Your task to perform on an android device: Find coffee shops on Maps Image 0: 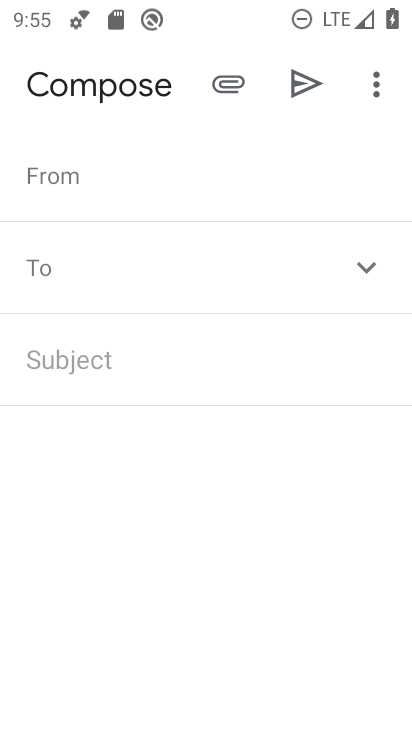
Step 0: drag from (336, 582) to (303, 190)
Your task to perform on an android device: Find coffee shops on Maps Image 1: 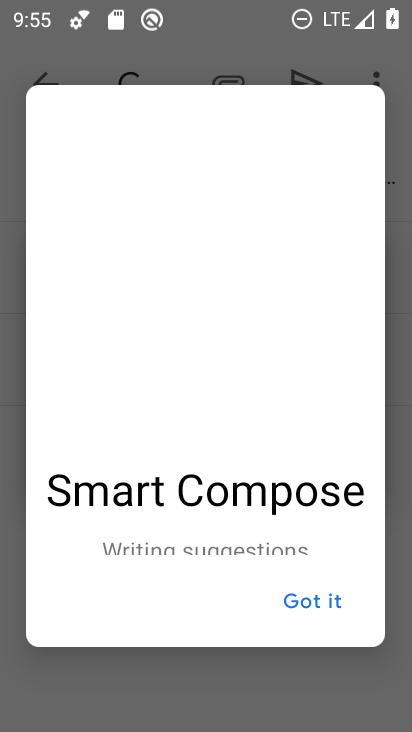
Step 1: press home button
Your task to perform on an android device: Find coffee shops on Maps Image 2: 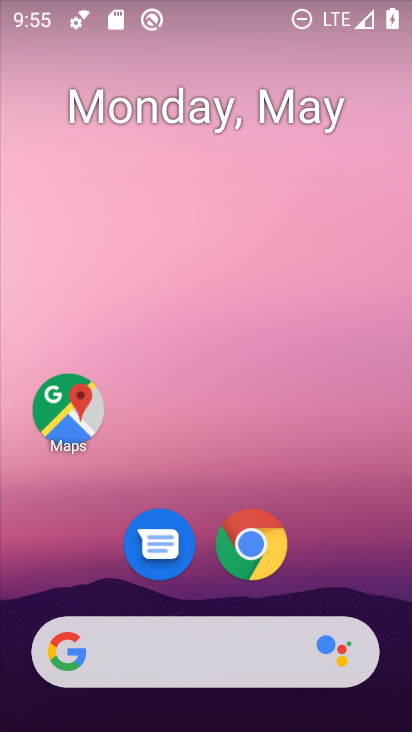
Step 2: drag from (327, 548) to (333, 150)
Your task to perform on an android device: Find coffee shops on Maps Image 3: 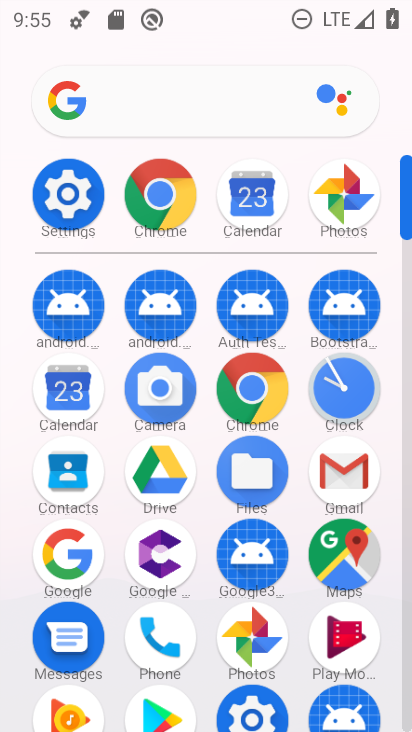
Step 3: drag from (253, 533) to (311, 184)
Your task to perform on an android device: Find coffee shops on Maps Image 4: 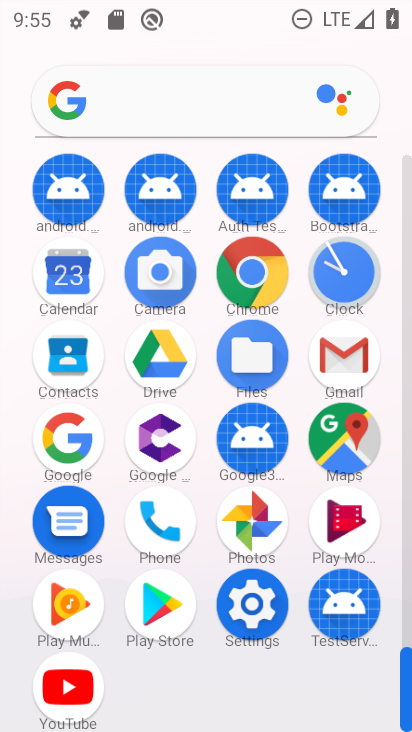
Step 4: click (334, 405)
Your task to perform on an android device: Find coffee shops on Maps Image 5: 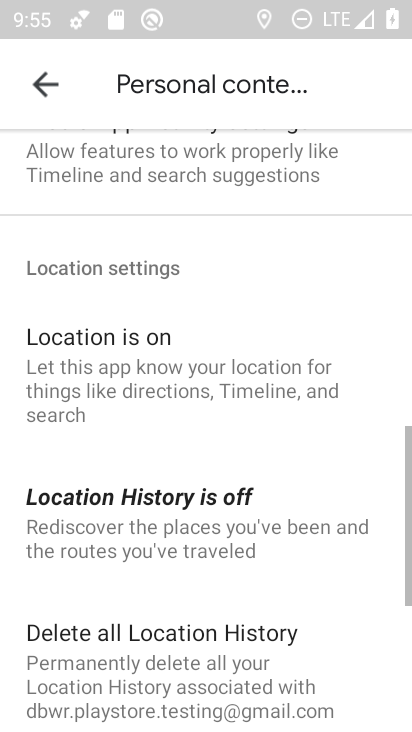
Step 5: click (49, 98)
Your task to perform on an android device: Find coffee shops on Maps Image 6: 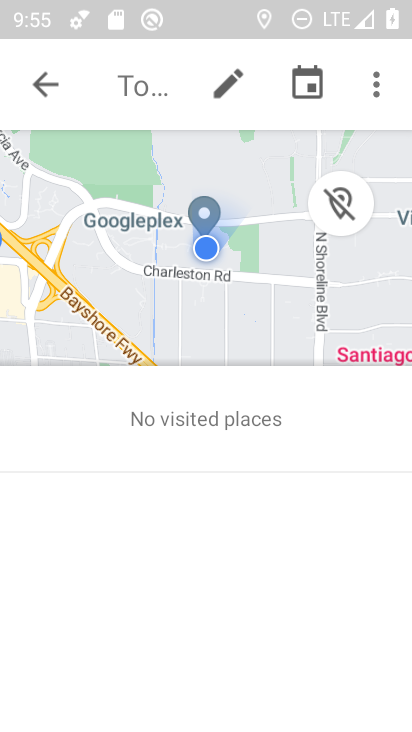
Step 6: click (51, 83)
Your task to perform on an android device: Find coffee shops on Maps Image 7: 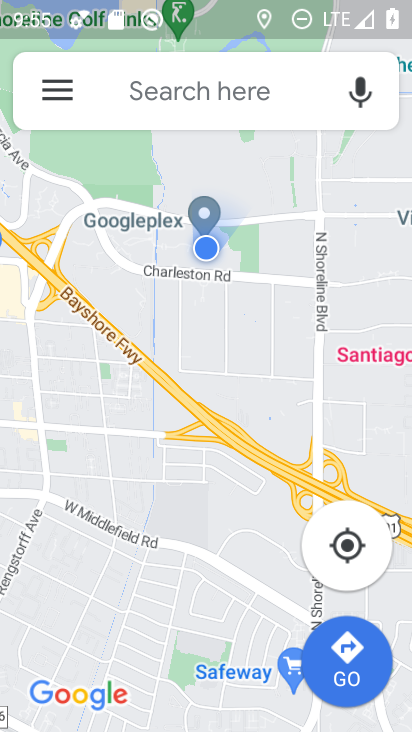
Step 7: click (168, 79)
Your task to perform on an android device: Find coffee shops on Maps Image 8: 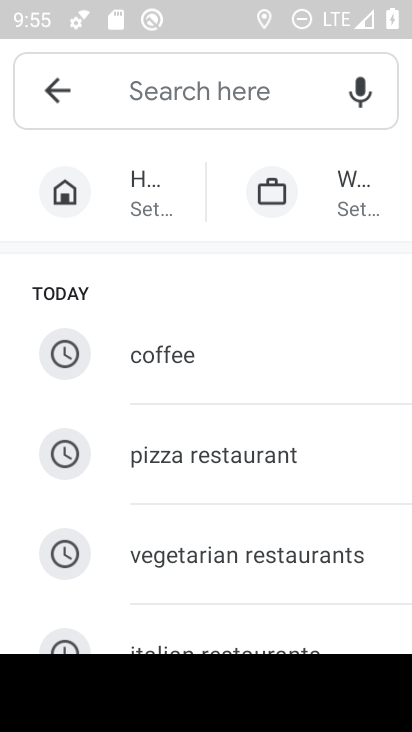
Step 8: type "coffee shops "
Your task to perform on an android device: Find coffee shops on Maps Image 9: 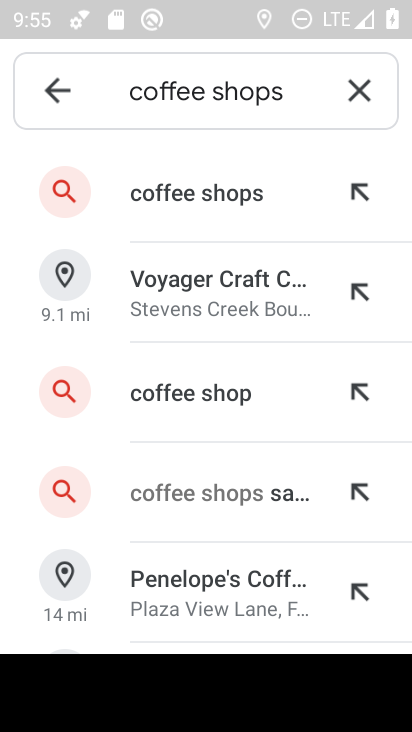
Step 9: click (218, 193)
Your task to perform on an android device: Find coffee shops on Maps Image 10: 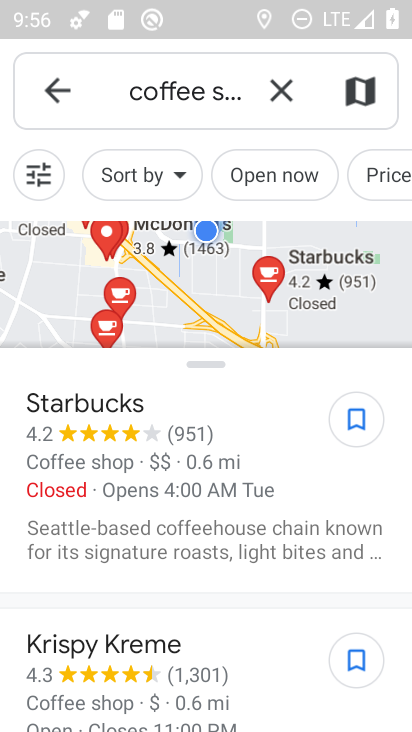
Step 10: task complete